Your task to perform on an android device: Open Reddit.com Image 0: 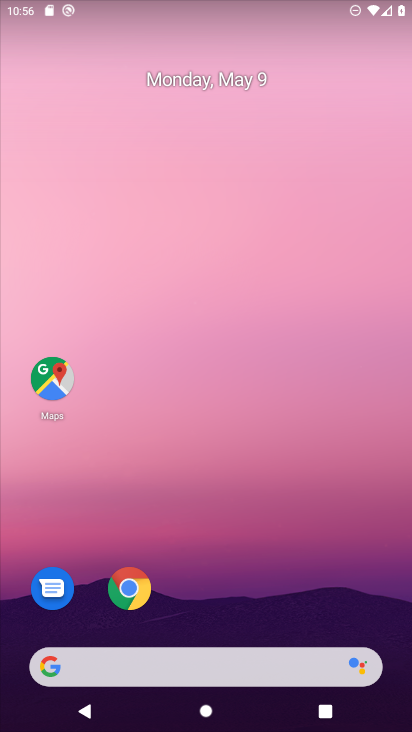
Step 0: click (137, 597)
Your task to perform on an android device: Open Reddit.com Image 1: 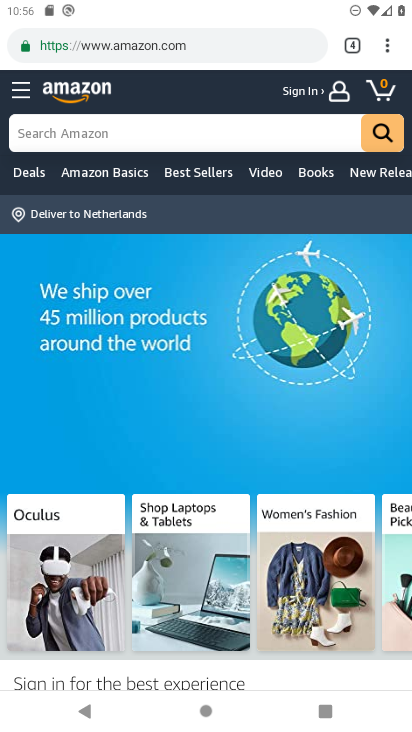
Step 1: click (229, 43)
Your task to perform on an android device: Open Reddit.com Image 2: 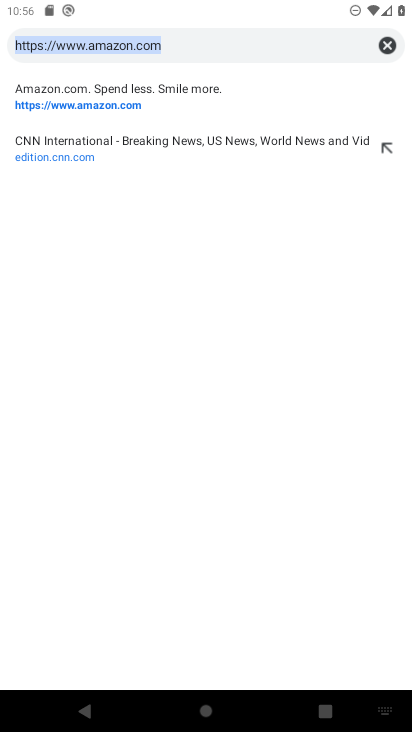
Step 2: type "reddit"
Your task to perform on an android device: Open Reddit.com Image 3: 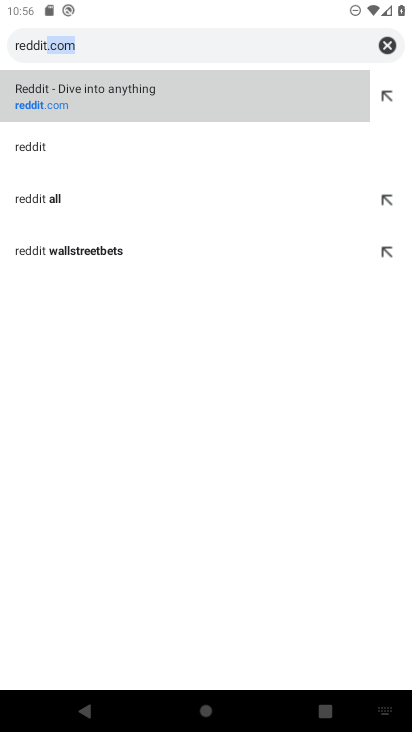
Step 3: click (144, 85)
Your task to perform on an android device: Open Reddit.com Image 4: 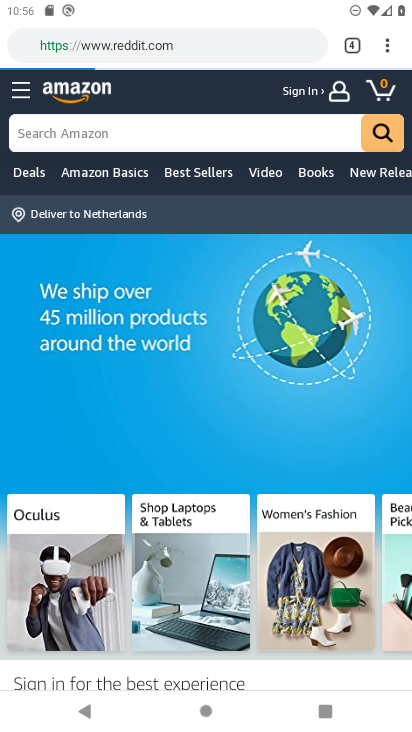
Step 4: task complete